Your task to perform on an android device: Go to Google maps Image 0: 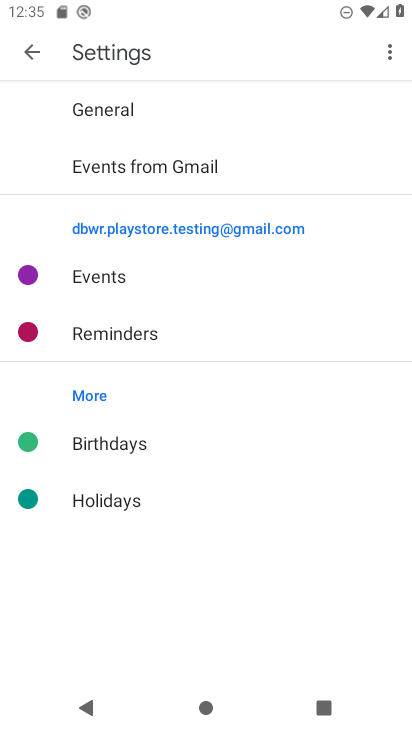
Step 0: press home button
Your task to perform on an android device: Go to Google maps Image 1: 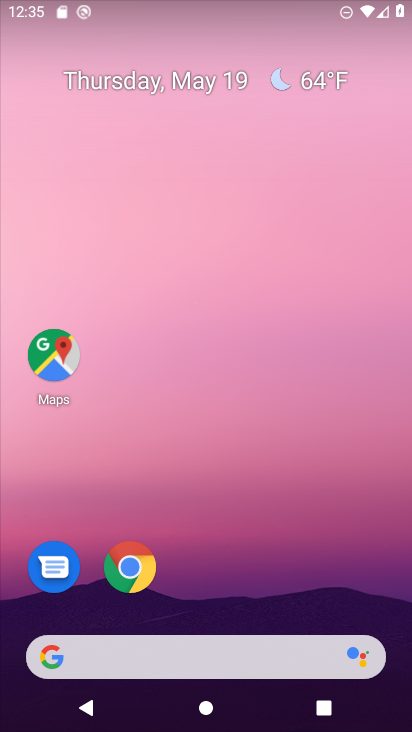
Step 1: click (40, 350)
Your task to perform on an android device: Go to Google maps Image 2: 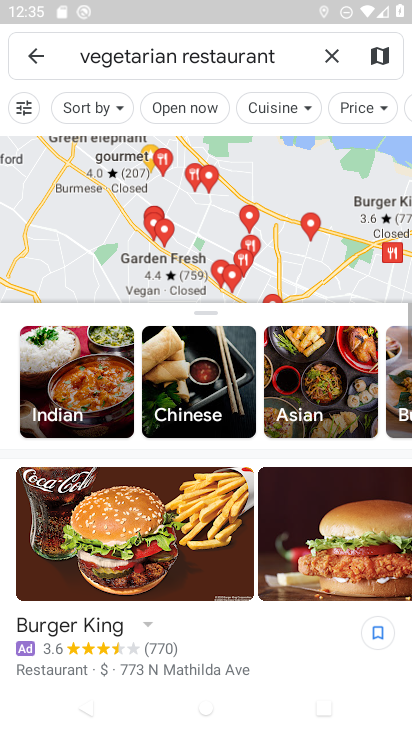
Step 2: click (329, 48)
Your task to perform on an android device: Go to Google maps Image 3: 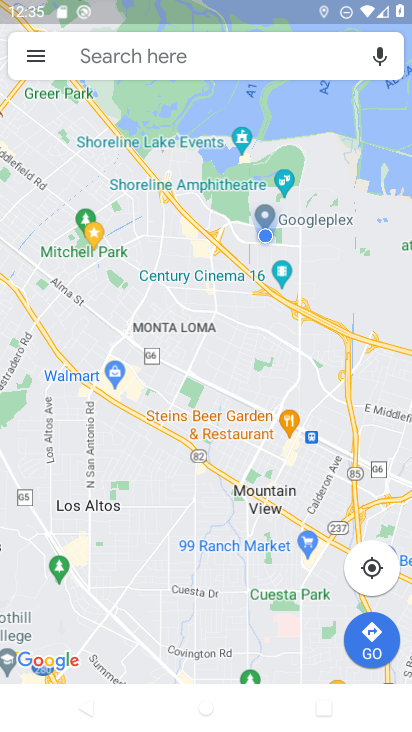
Step 3: task complete